Your task to perform on an android device: toggle javascript in the chrome app Image 0: 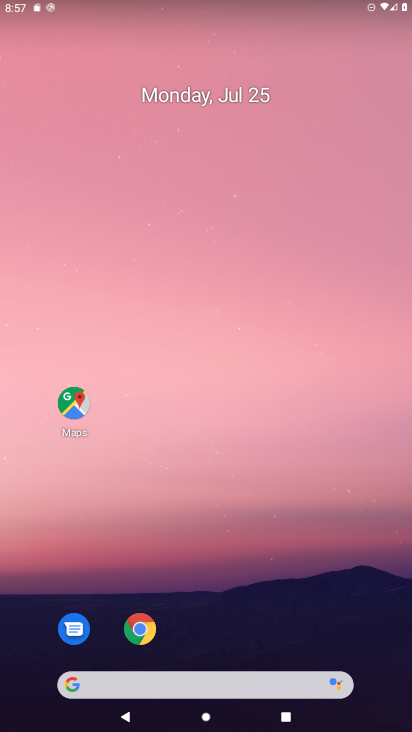
Step 0: click (144, 629)
Your task to perform on an android device: toggle javascript in the chrome app Image 1: 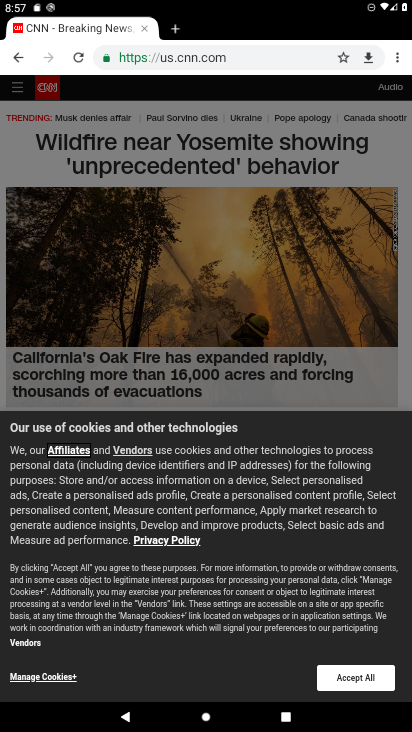
Step 1: drag from (400, 61) to (303, 353)
Your task to perform on an android device: toggle javascript in the chrome app Image 2: 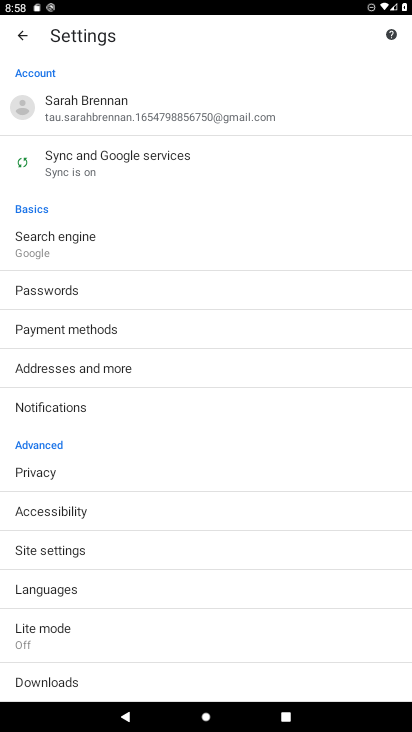
Step 2: click (28, 547)
Your task to perform on an android device: toggle javascript in the chrome app Image 3: 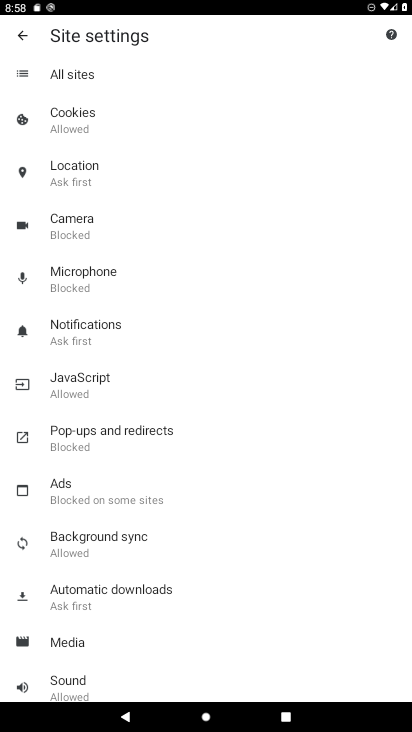
Step 3: click (85, 378)
Your task to perform on an android device: toggle javascript in the chrome app Image 4: 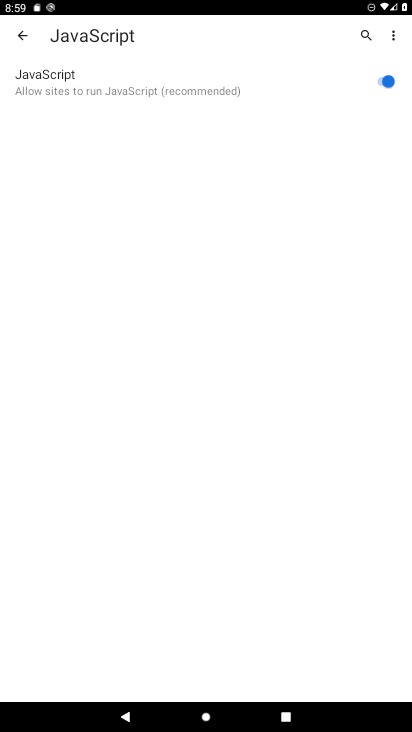
Step 4: click (390, 88)
Your task to perform on an android device: toggle javascript in the chrome app Image 5: 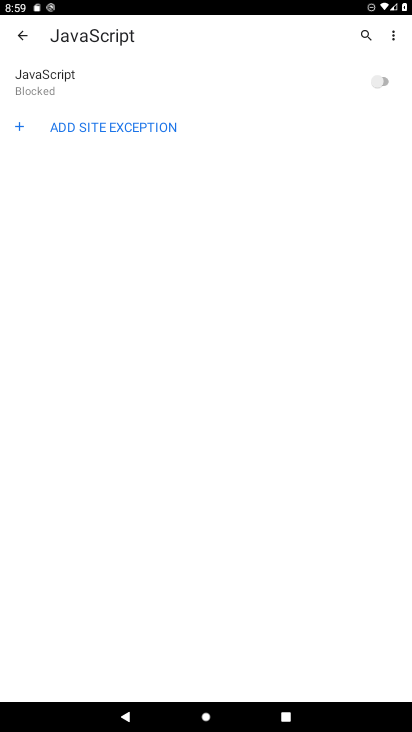
Step 5: task complete